Your task to perform on an android device: Open the calendar app, open the side menu, and click the "Day" option Image 0: 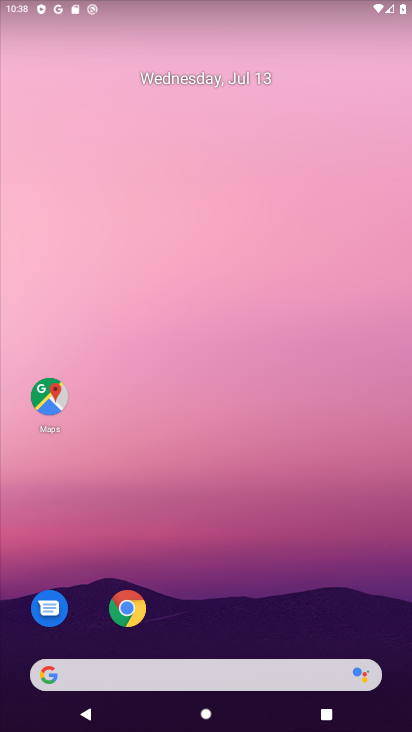
Step 0: drag from (273, 608) to (254, 204)
Your task to perform on an android device: Open the calendar app, open the side menu, and click the "Day" option Image 1: 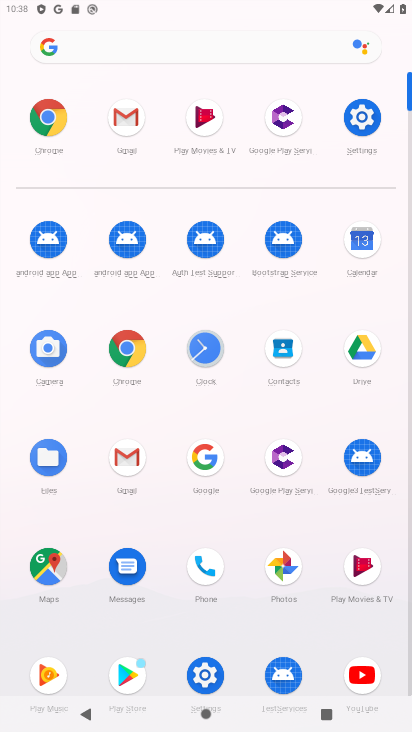
Step 1: click (365, 259)
Your task to perform on an android device: Open the calendar app, open the side menu, and click the "Day" option Image 2: 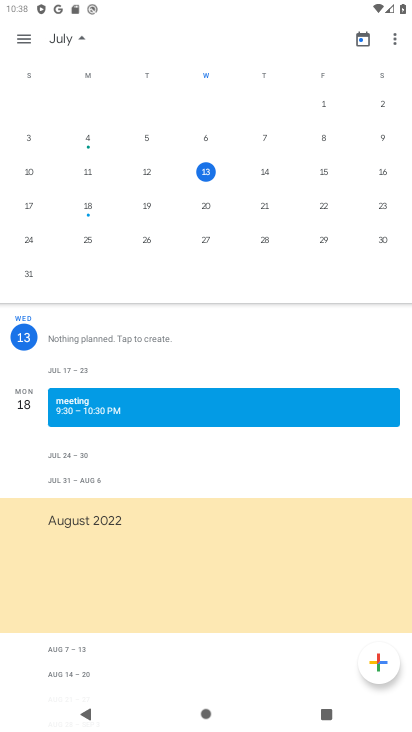
Step 2: click (17, 47)
Your task to perform on an android device: Open the calendar app, open the side menu, and click the "Day" option Image 3: 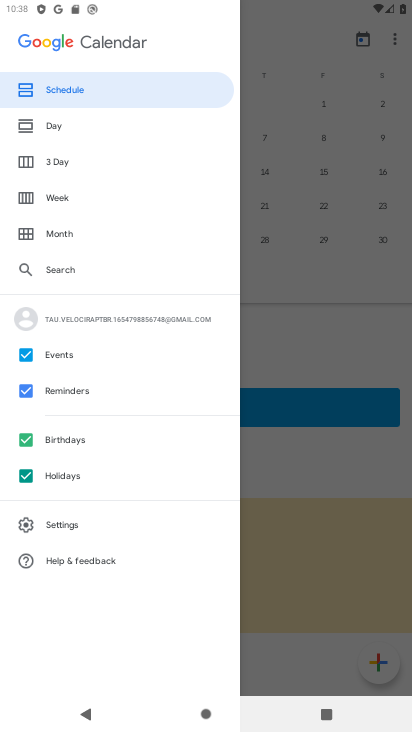
Step 3: click (41, 137)
Your task to perform on an android device: Open the calendar app, open the side menu, and click the "Day" option Image 4: 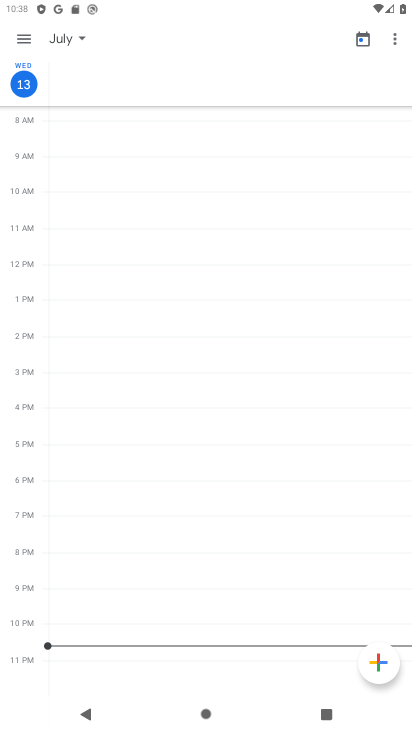
Step 4: task complete